Your task to perform on an android device: toggle airplane mode Image 0: 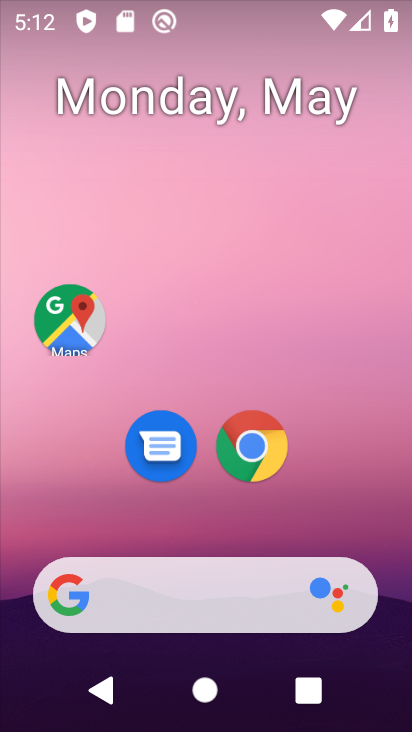
Step 0: drag from (336, 484) to (197, 59)
Your task to perform on an android device: toggle airplane mode Image 1: 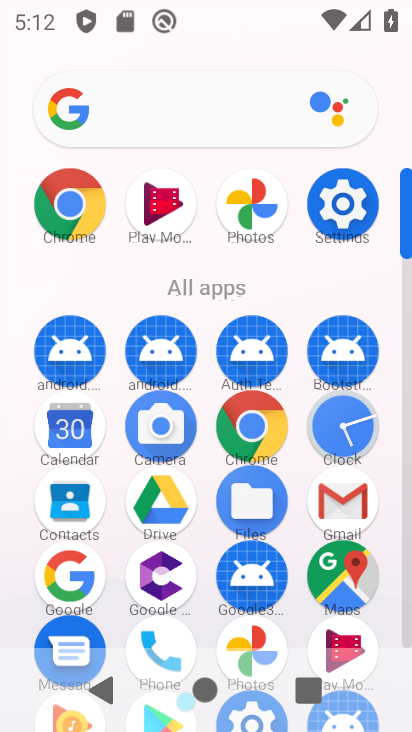
Step 1: click (333, 210)
Your task to perform on an android device: toggle airplane mode Image 2: 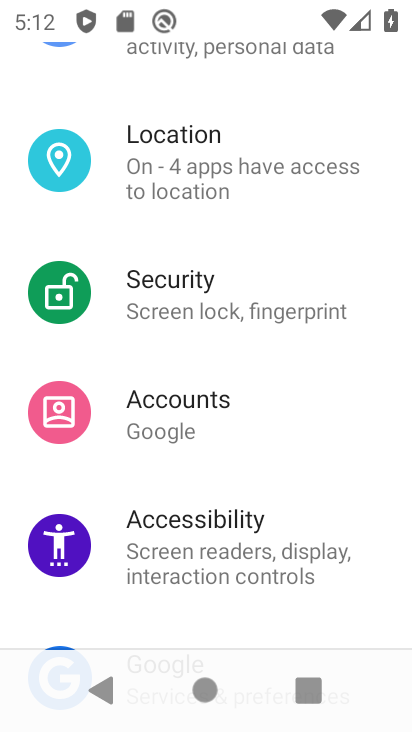
Step 2: drag from (224, 199) to (326, 647)
Your task to perform on an android device: toggle airplane mode Image 3: 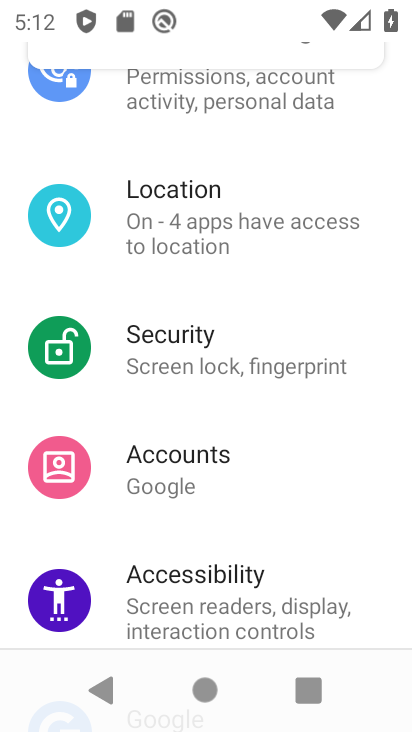
Step 3: drag from (267, 290) to (230, 709)
Your task to perform on an android device: toggle airplane mode Image 4: 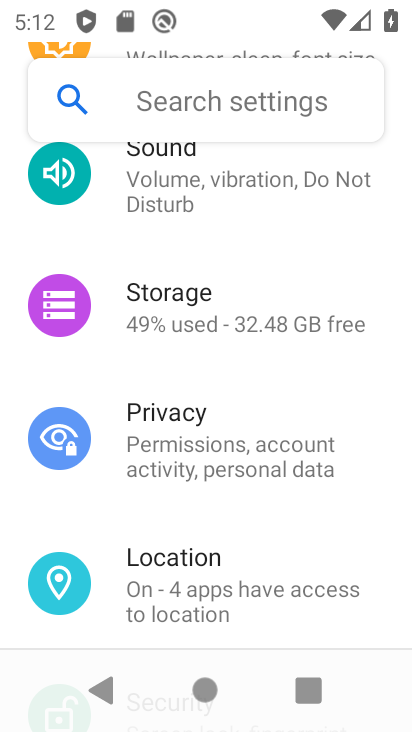
Step 4: drag from (247, 251) to (285, 631)
Your task to perform on an android device: toggle airplane mode Image 5: 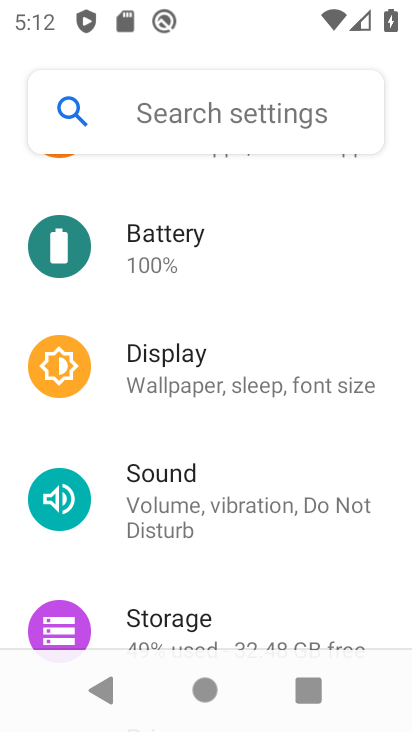
Step 5: drag from (235, 304) to (257, 547)
Your task to perform on an android device: toggle airplane mode Image 6: 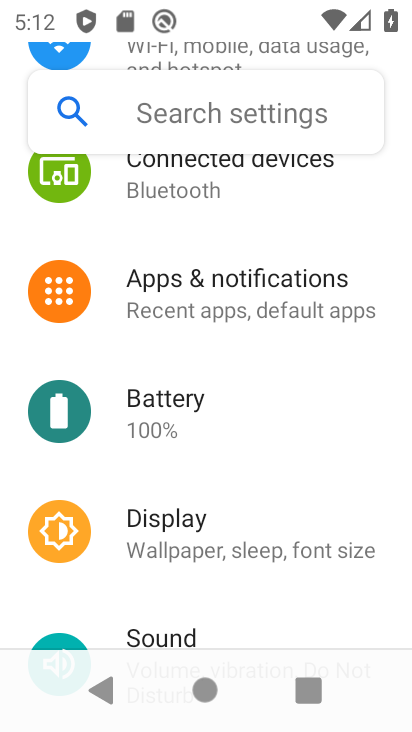
Step 6: drag from (202, 275) to (237, 568)
Your task to perform on an android device: toggle airplane mode Image 7: 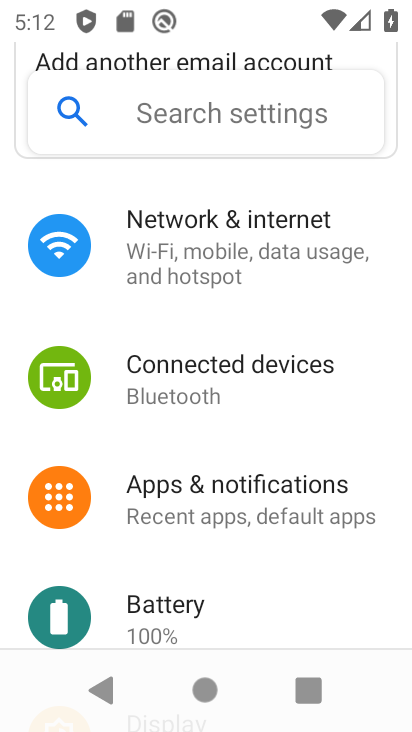
Step 7: click (217, 233)
Your task to perform on an android device: toggle airplane mode Image 8: 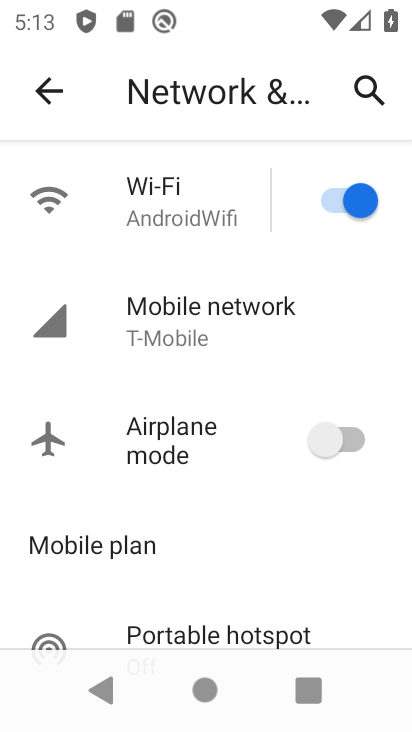
Step 8: click (325, 445)
Your task to perform on an android device: toggle airplane mode Image 9: 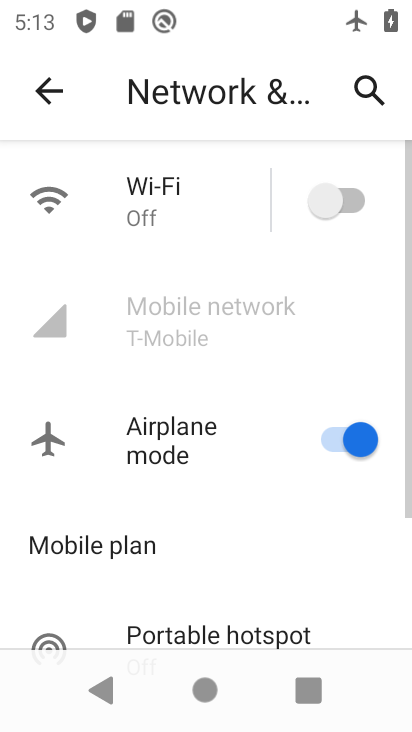
Step 9: task complete